Your task to perform on an android device: install app "Indeed Job Search" Image 0: 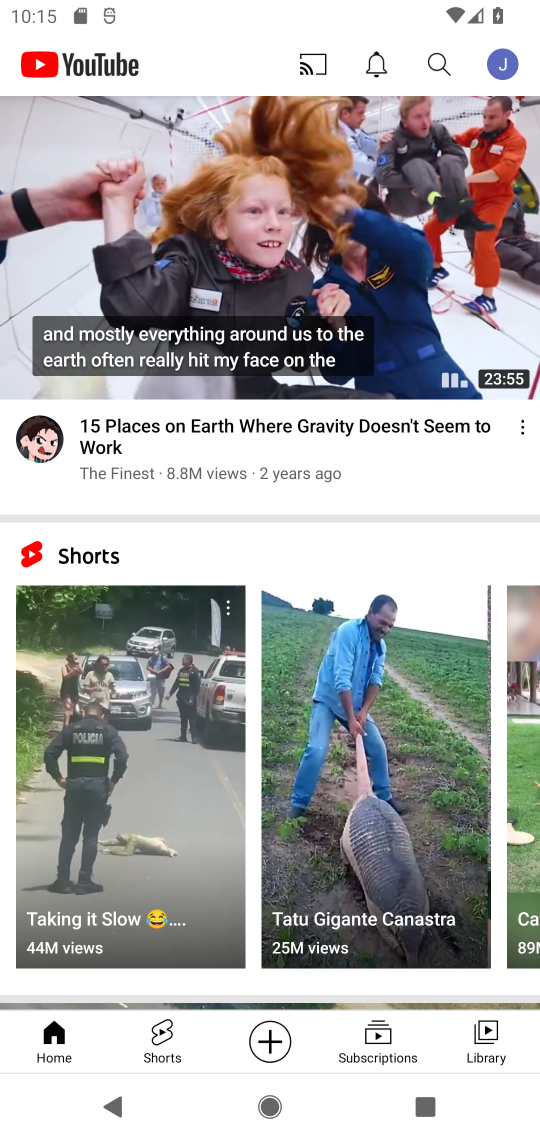
Step 0: press home button
Your task to perform on an android device: install app "Indeed Job Search" Image 1: 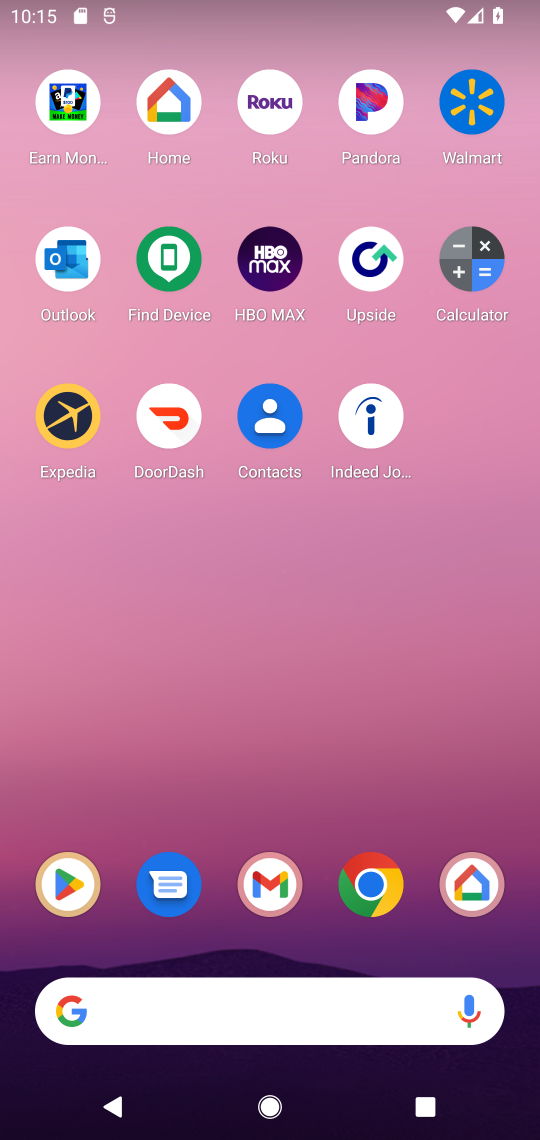
Step 1: click (68, 852)
Your task to perform on an android device: install app "Indeed Job Search" Image 2: 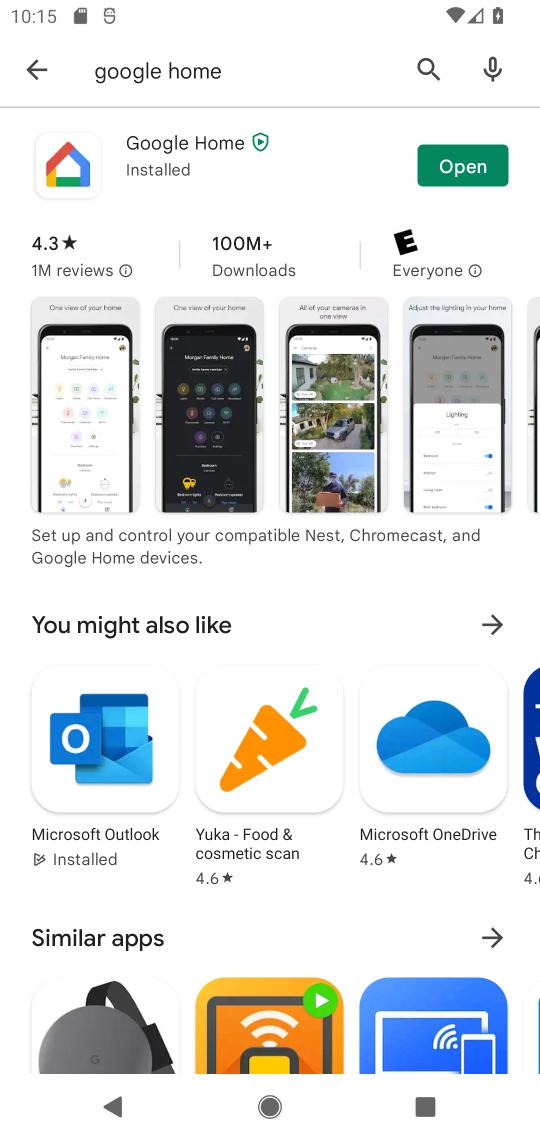
Step 2: click (171, 65)
Your task to perform on an android device: install app "Indeed Job Search" Image 3: 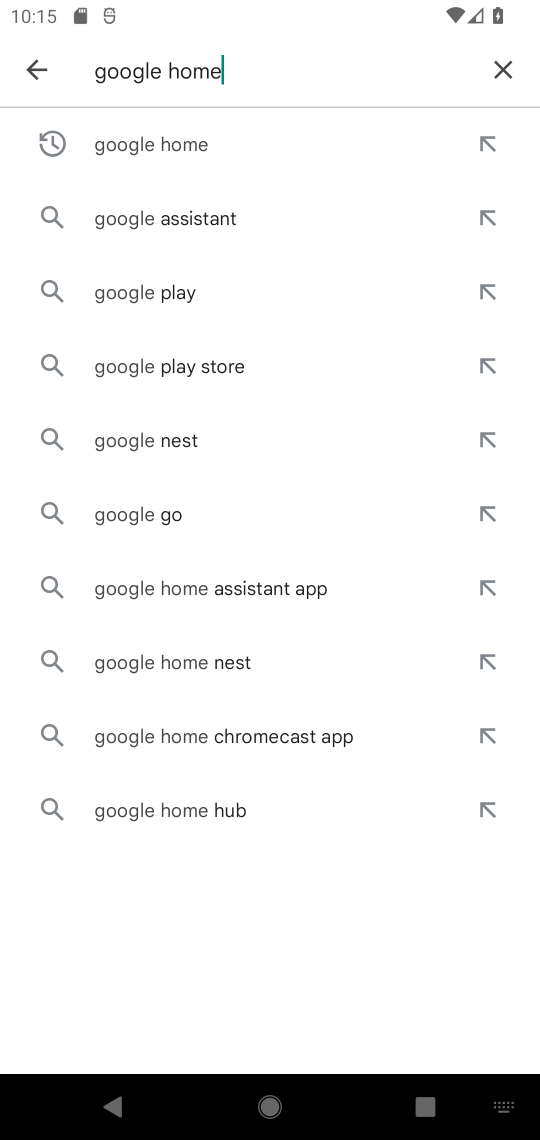
Step 3: click (500, 68)
Your task to perform on an android device: install app "Indeed Job Search" Image 4: 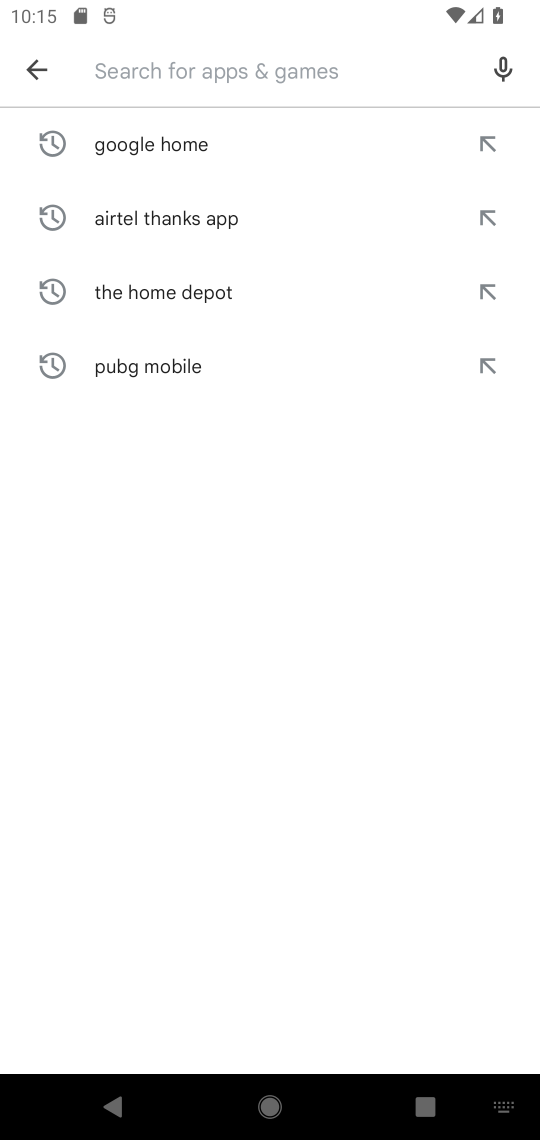
Step 4: type "indeed "
Your task to perform on an android device: install app "Indeed Job Search" Image 5: 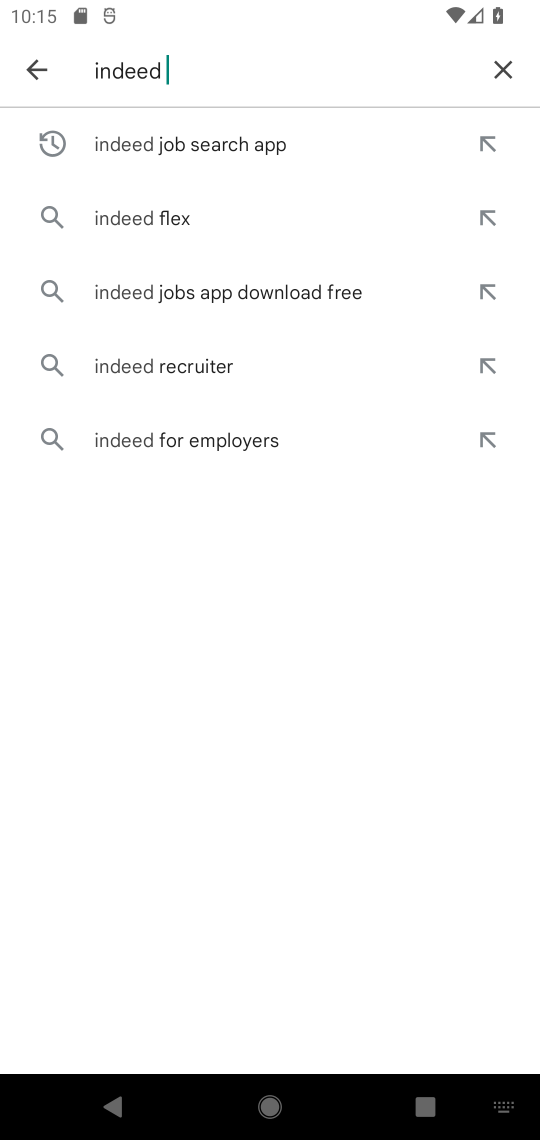
Step 5: click (108, 129)
Your task to perform on an android device: install app "Indeed Job Search" Image 6: 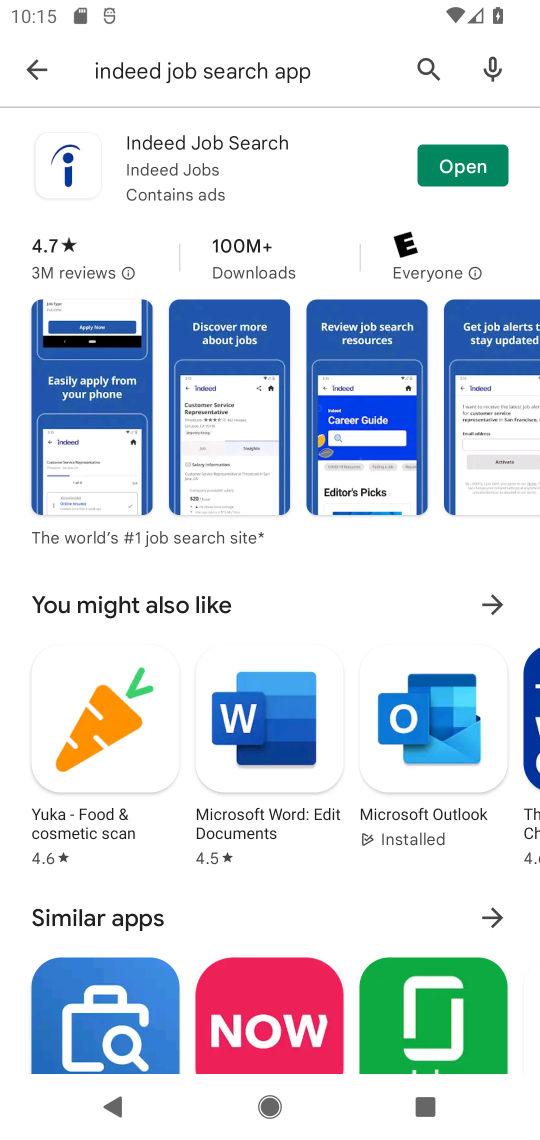
Step 6: task complete